Your task to perform on an android device: Open Google Maps Image 0: 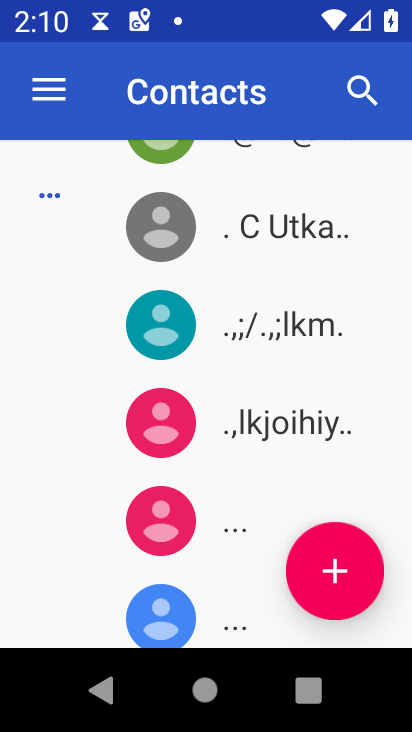
Step 0: press home button
Your task to perform on an android device: Open Google Maps Image 1: 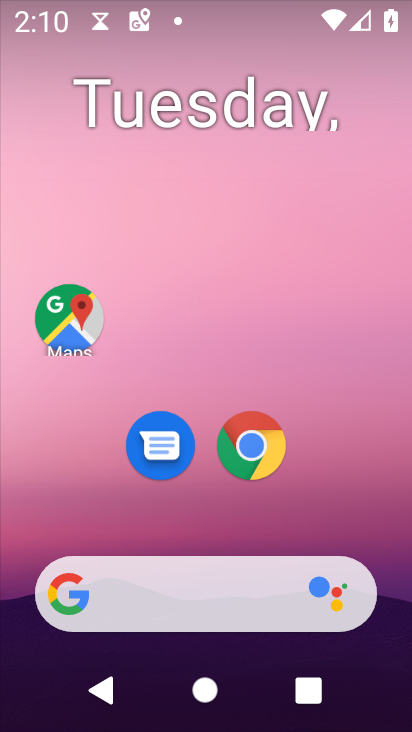
Step 1: drag from (265, 482) to (281, 28)
Your task to perform on an android device: Open Google Maps Image 2: 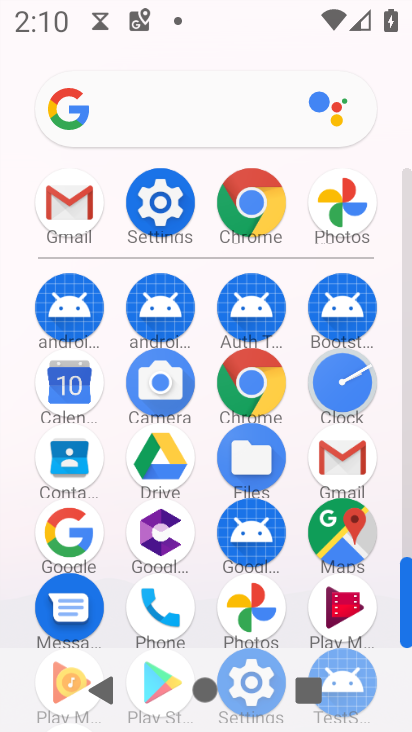
Step 2: click (339, 544)
Your task to perform on an android device: Open Google Maps Image 3: 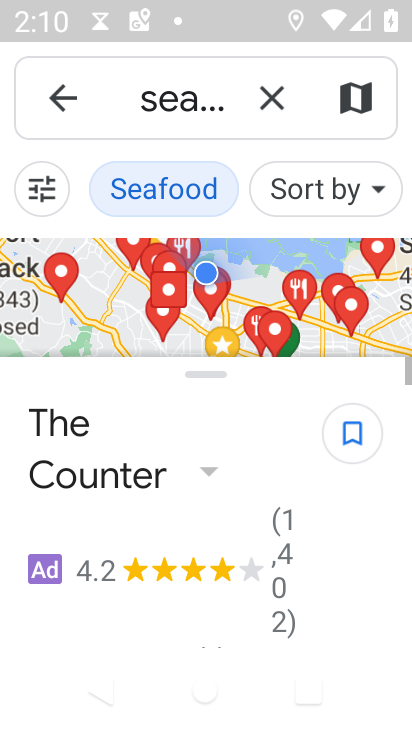
Step 3: task complete